Your task to perform on an android device: read, delete, or share a saved page in the chrome app Image 0: 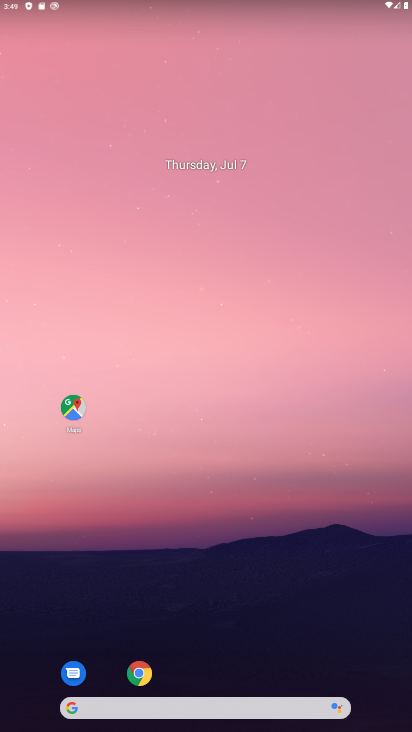
Step 0: drag from (211, 617) to (281, 1)
Your task to perform on an android device: read, delete, or share a saved page in the chrome app Image 1: 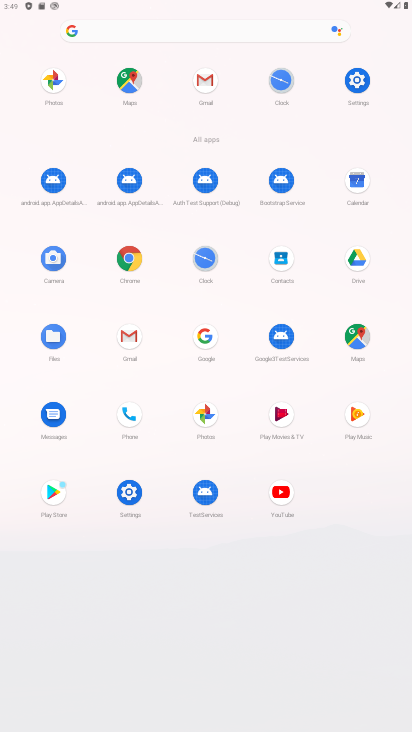
Step 1: click (134, 259)
Your task to perform on an android device: read, delete, or share a saved page in the chrome app Image 2: 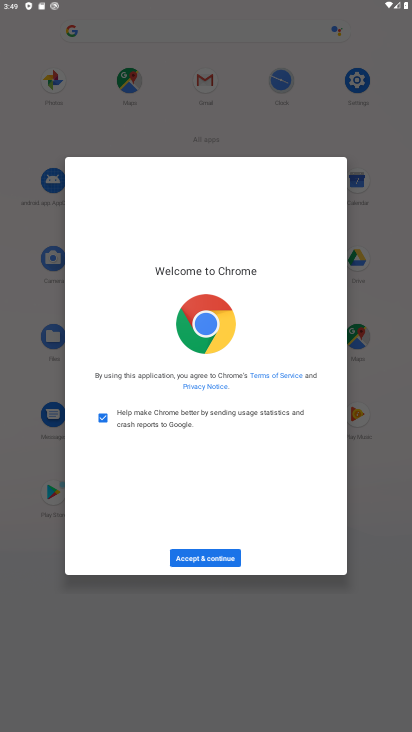
Step 2: click (223, 549)
Your task to perform on an android device: read, delete, or share a saved page in the chrome app Image 3: 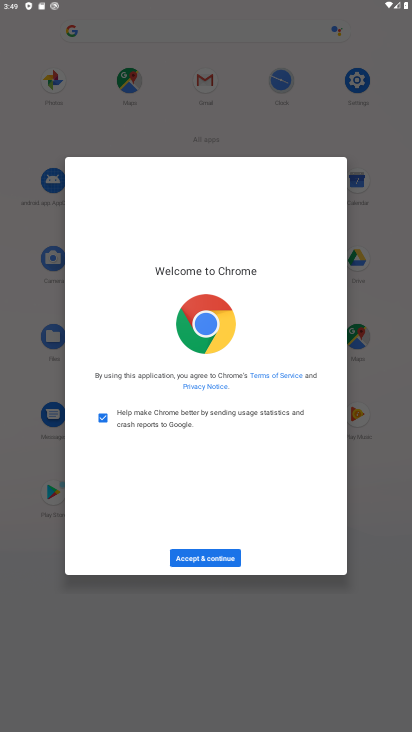
Step 3: click (184, 559)
Your task to perform on an android device: read, delete, or share a saved page in the chrome app Image 4: 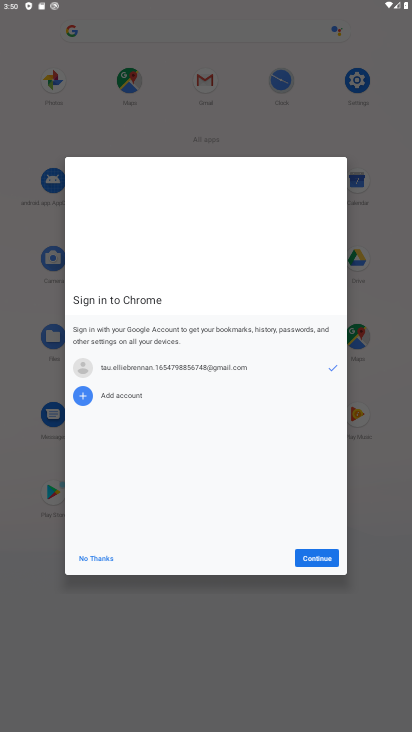
Step 4: click (316, 550)
Your task to perform on an android device: read, delete, or share a saved page in the chrome app Image 5: 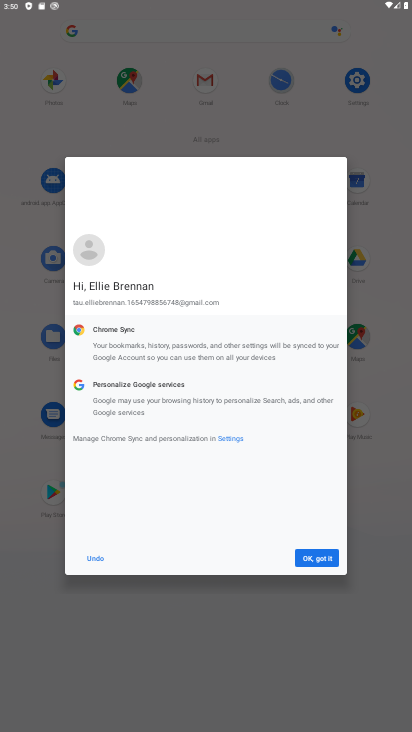
Step 5: click (316, 550)
Your task to perform on an android device: read, delete, or share a saved page in the chrome app Image 6: 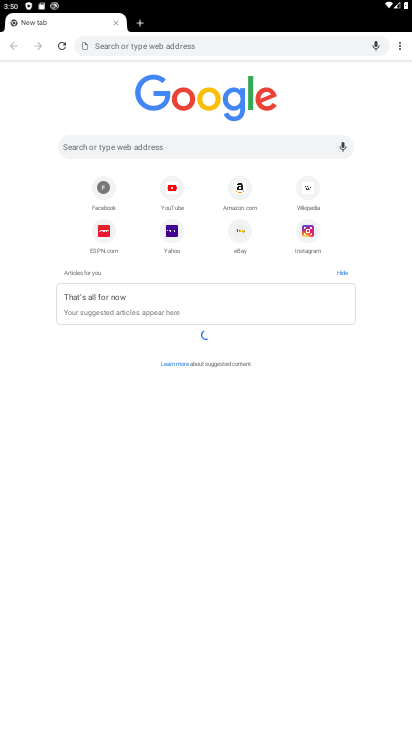
Step 6: drag from (398, 44) to (319, 169)
Your task to perform on an android device: read, delete, or share a saved page in the chrome app Image 7: 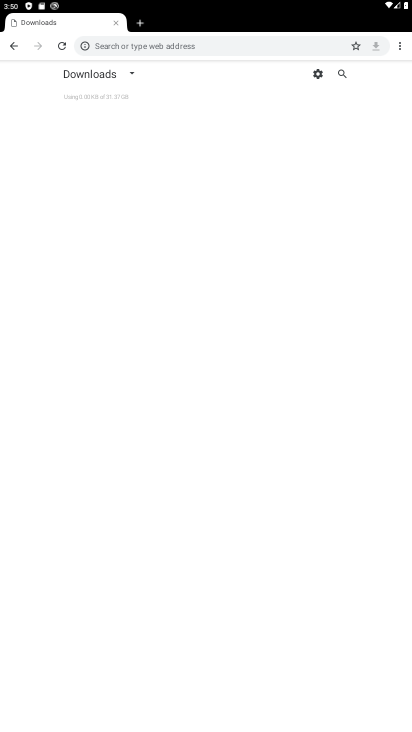
Step 7: click (124, 77)
Your task to perform on an android device: read, delete, or share a saved page in the chrome app Image 8: 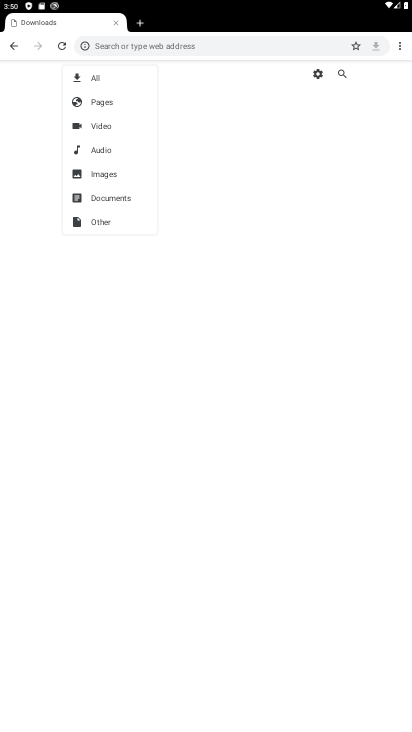
Step 8: click (114, 106)
Your task to perform on an android device: read, delete, or share a saved page in the chrome app Image 9: 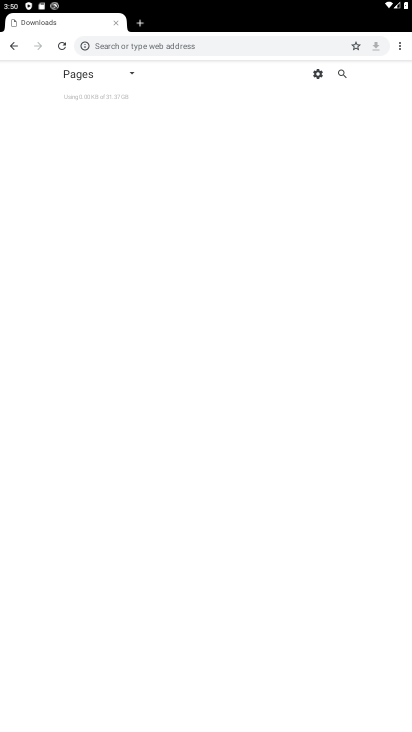
Step 9: task complete